Your task to perform on an android device: refresh tabs in the chrome app Image 0: 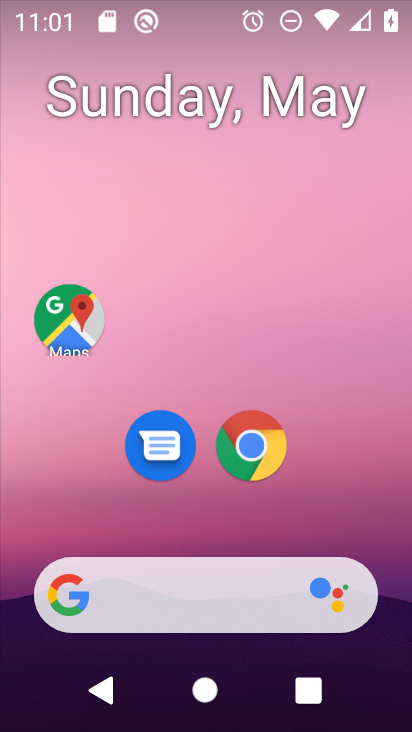
Step 0: drag from (230, 630) to (240, 72)
Your task to perform on an android device: refresh tabs in the chrome app Image 1: 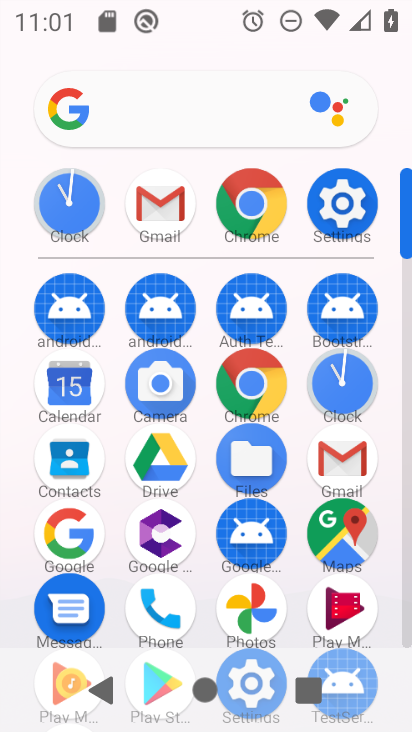
Step 1: click (234, 207)
Your task to perform on an android device: refresh tabs in the chrome app Image 2: 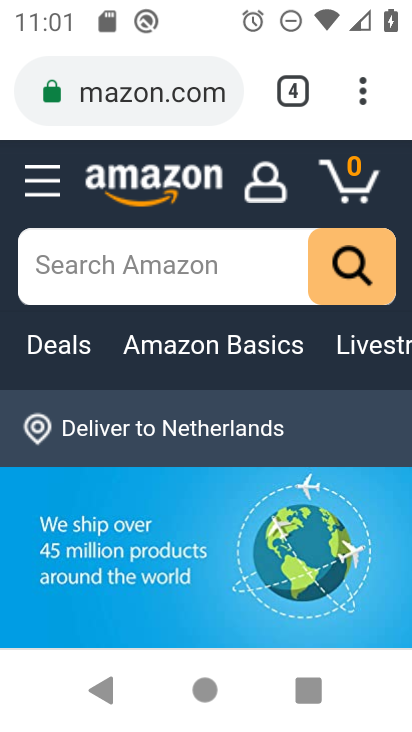
Step 2: click (365, 107)
Your task to perform on an android device: refresh tabs in the chrome app Image 3: 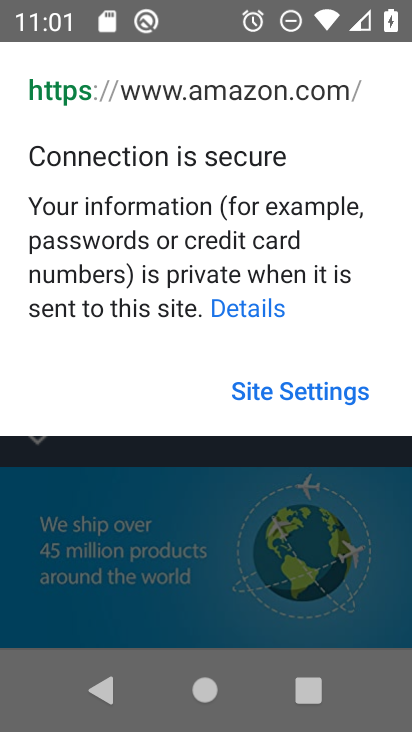
Step 3: click (299, 547)
Your task to perform on an android device: refresh tabs in the chrome app Image 4: 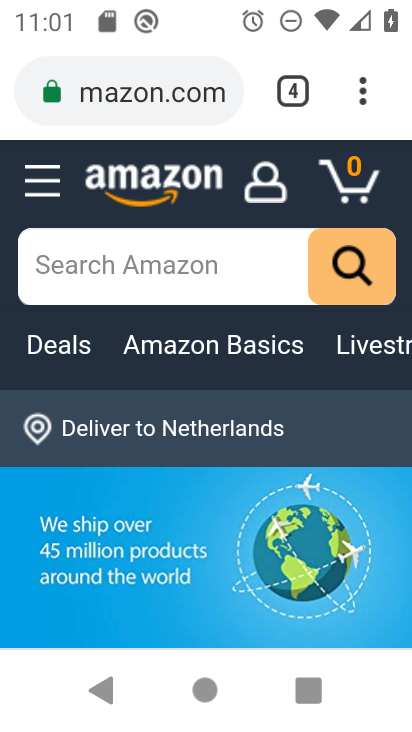
Step 4: click (359, 105)
Your task to perform on an android device: refresh tabs in the chrome app Image 5: 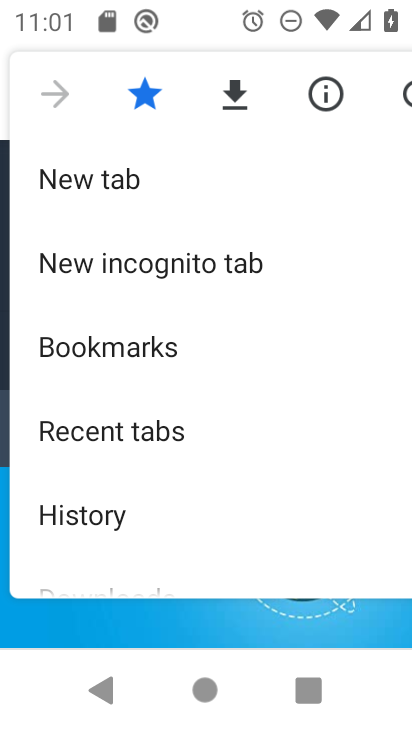
Step 5: drag from (367, 91) to (14, 92)
Your task to perform on an android device: refresh tabs in the chrome app Image 6: 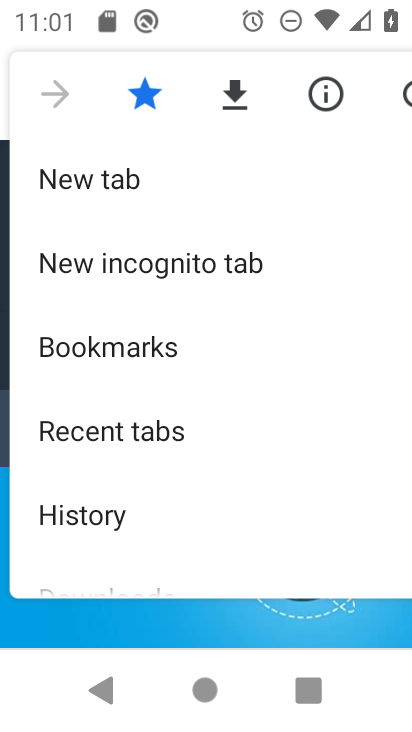
Step 6: drag from (385, 93) to (85, 101)
Your task to perform on an android device: refresh tabs in the chrome app Image 7: 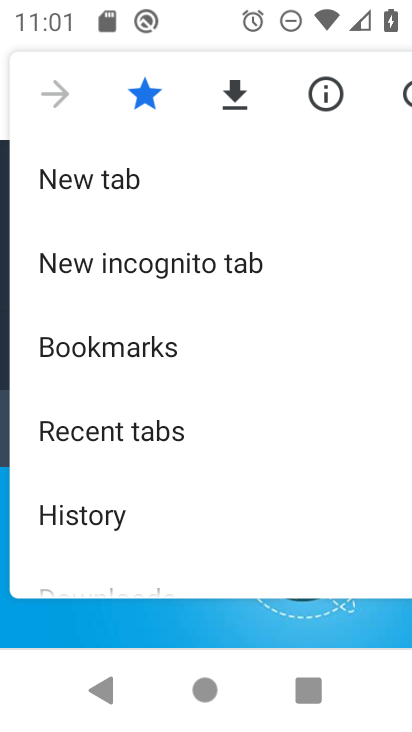
Step 7: drag from (310, 89) to (85, 107)
Your task to perform on an android device: refresh tabs in the chrome app Image 8: 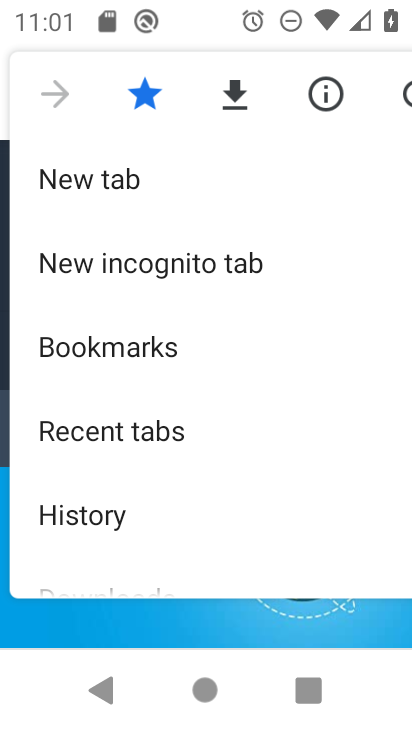
Step 8: click (396, 86)
Your task to perform on an android device: refresh tabs in the chrome app Image 9: 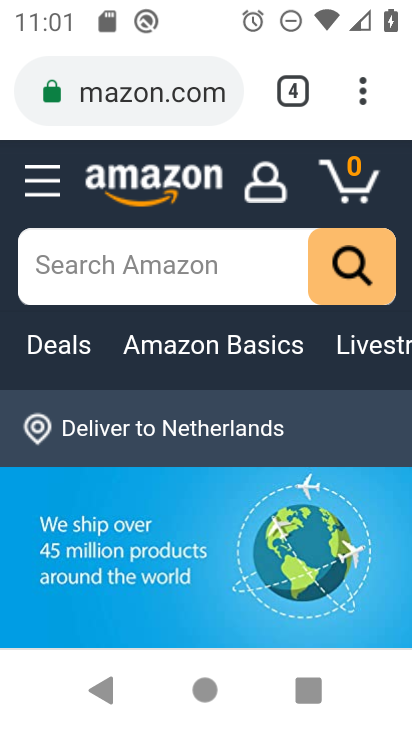
Step 9: task complete